Your task to perform on an android device: Show the shopping cart on ebay. Search for "asus zenbook" on ebay, select the first entry, and add it to the cart. Image 0: 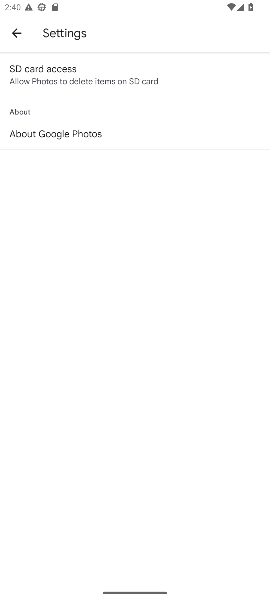
Step 0: press home button
Your task to perform on an android device: Show the shopping cart on ebay. Search for "asus zenbook" on ebay, select the first entry, and add it to the cart. Image 1: 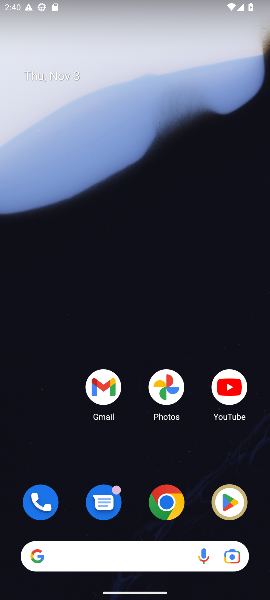
Step 1: drag from (126, 541) to (174, 97)
Your task to perform on an android device: Show the shopping cart on ebay. Search for "asus zenbook" on ebay, select the first entry, and add it to the cart. Image 2: 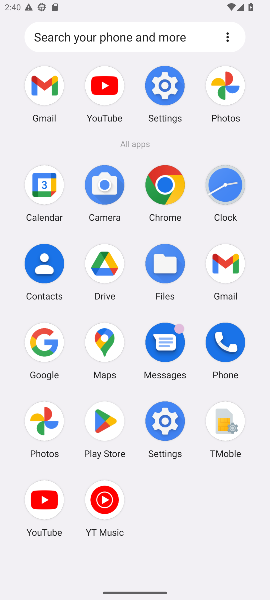
Step 2: click (58, 364)
Your task to perform on an android device: Show the shopping cart on ebay. Search for "asus zenbook" on ebay, select the first entry, and add it to the cart. Image 3: 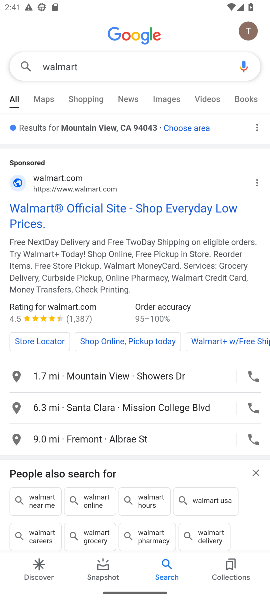
Step 3: click (101, 62)
Your task to perform on an android device: Show the shopping cart on ebay. Search for "asus zenbook" on ebay, select the first entry, and add it to the cart. Image 4: 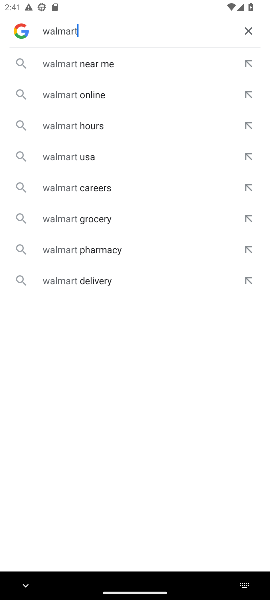
Step 4: click (244, 27)
Your task to perform on an android device: Show the shopping cart on ebay. Search for "asus zenbook" on ebay, select the first entry, and add it to the cart. Image 5: 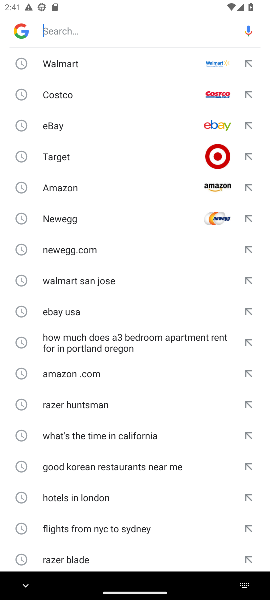
Step 5: type "ebay"
Your task to perform on an android device: Show the shopping cart on ebay. Search for "asus zenbook" on ebay, select the first entry, and add it to the cart. Image 6: 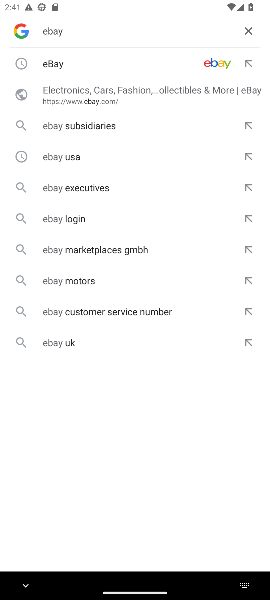
Step 6: click (157, 90)
Your task to perform on an android device: Show the shopping cart on ebay. Search for "asus zenbook" on ebay, select the first entry, and add it to the cart. Image 7: 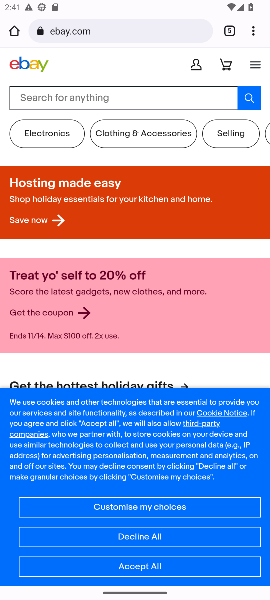
Step 7: click (135, 94)
Your task to perform on an android device: Show the shopping cart on ebay. Search for "asus zenbook" on ebay, select the first entry, and add it to the cart. Image 8: 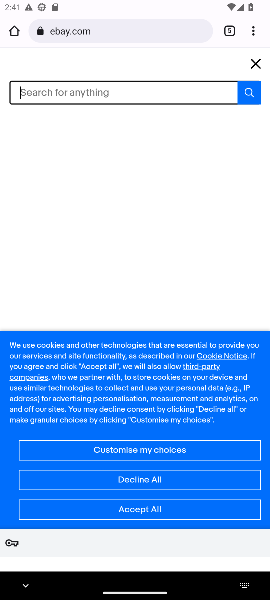
Step 8: type "asus zenbook"
Your task to perform on an android device: Show the shopping cart on ebay. Search for "asus zenbook" on ebay, select the first entry, and add it to the cart. Image 9: 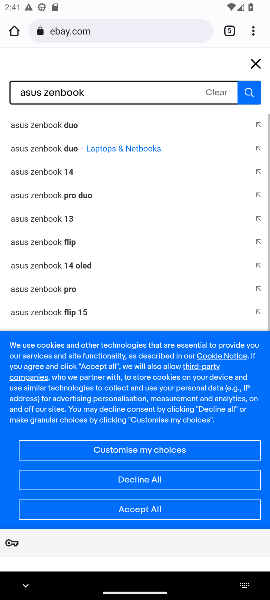
Step 9: click (75, 121)
Your task to perform on an android device: Show the shopping cart on ebay. Search for "asus zenbook" on ebay, select the first entry, and add it to the cart. Image 10: 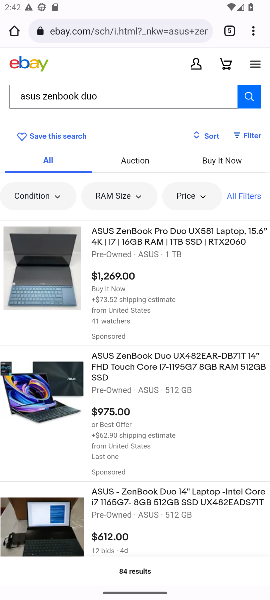
Step 10: click (112, 238)
Your task to perform on an android device: Show the shopping cart on ebay. Search for "asus zenbook" on ebay, select the first entry, and add it to the cart. Image 11: 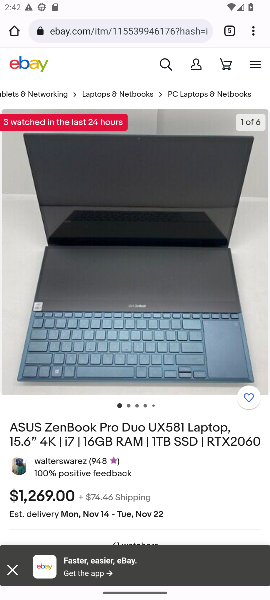
Step 11: drag from (163, 484) to (198, 229)
Your task to perform on an android device: Show the shopping cart on ebay. Search for "asus zenbook" on ebay, select the first entry, and add it to the cart. Image 12: 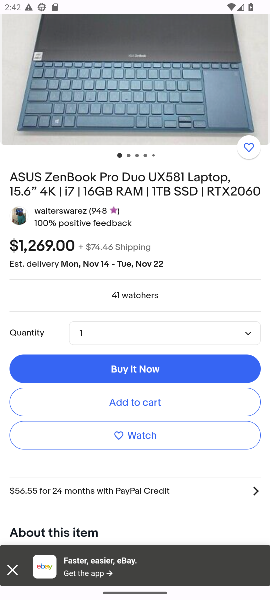
Step 12: click (150, 394)
Your task to perform on an android device: Show the shopping cart on ebay. Search for "asus zenbook" on ebay, select the first entry, and add it to the cart. Image 13: 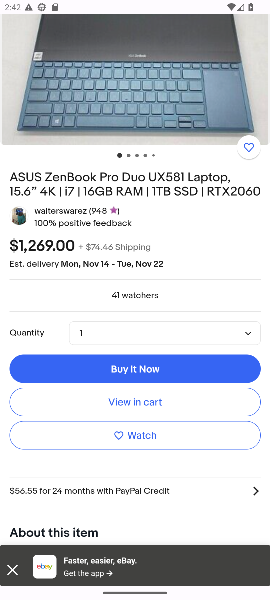
Step 13: task complete